Your task to perform on an android device: change the clock display to show seconds Image 0: 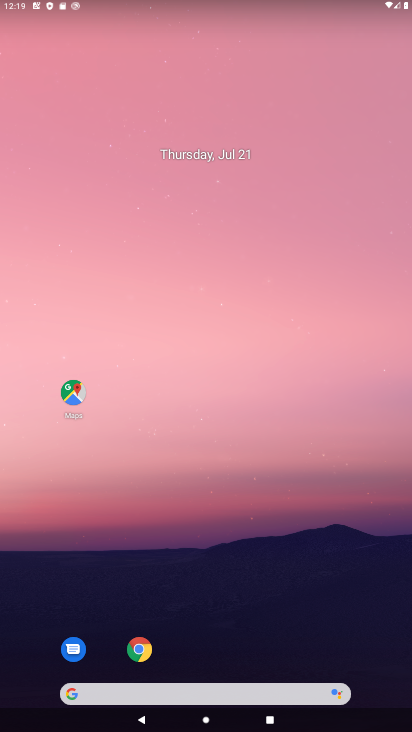
Step 0: drag from (384, 657) to (344, 98)
Your task to perform on an android device: change the clock display to show seconds Image 1: 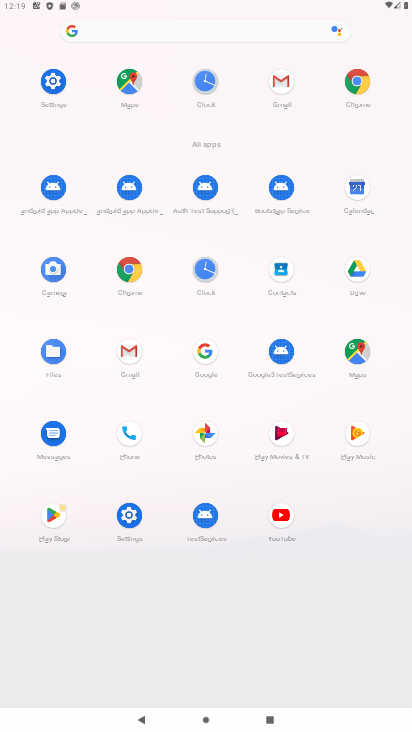
Step 1: click (205, 267)
Your task to perform on an android device: change the clock display to show seconds Image 2: 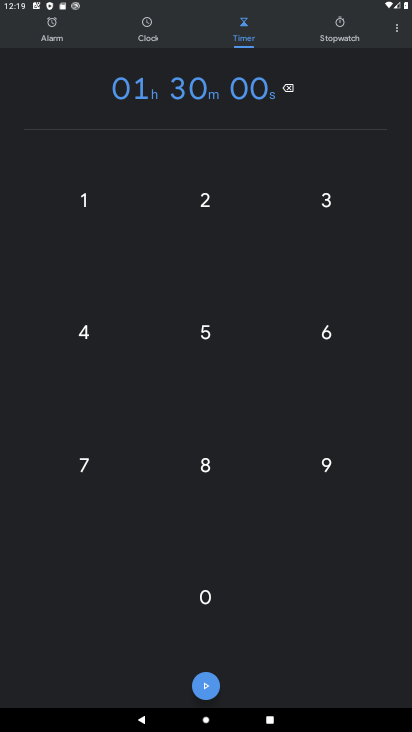
Step 2: click (400, 32)
Your task to perform on an android device: change the clock display to show seconds Image 3: 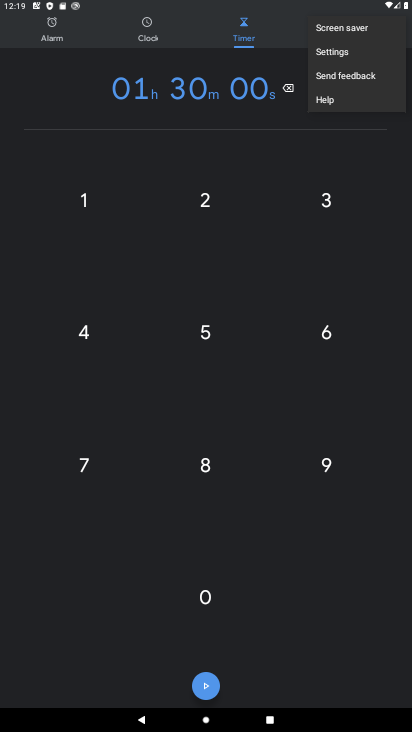
Step 3: click (331, 51)
Your task to perform on an android device: change the clock display to show seconds Image 4: 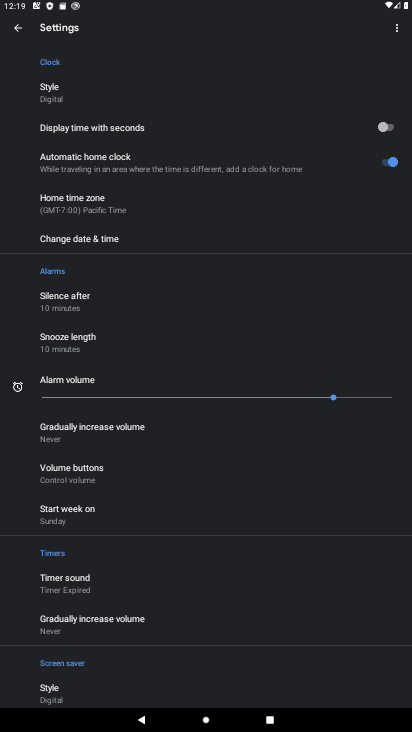
Step 4: click (388, 127)
Your task to perform on an android device: change the clock display to show seconds Image 5: 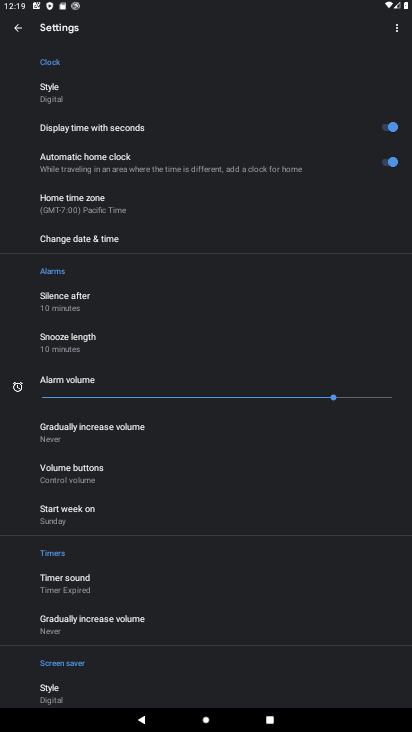
Step 5: task complete